Your task to perform on an android device: turn off picture-in-picture Image 0: 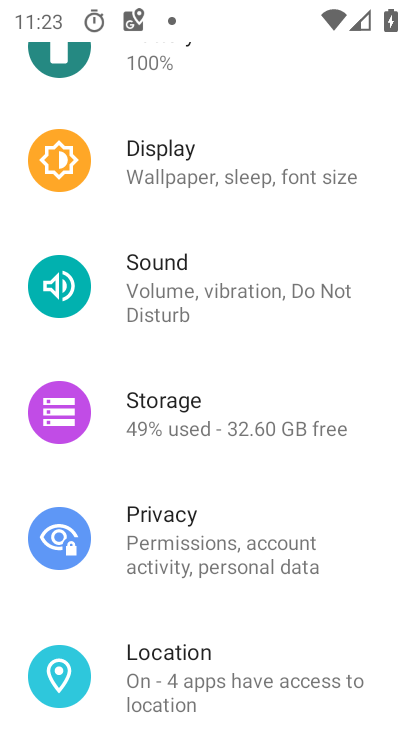
Step 0: press home button
Your task to perform on an android device: turn off picture-in-picture Image 1: 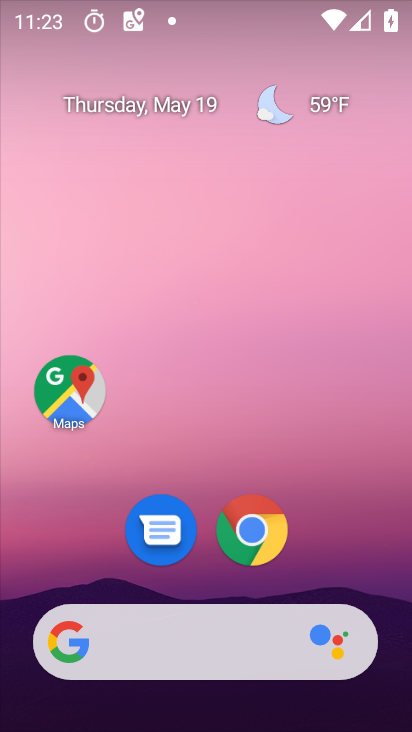
Step 1: drag from (350, 578) to (297, 127)
Your task to perform on an android device: turn off picture-in-picture Image 2: 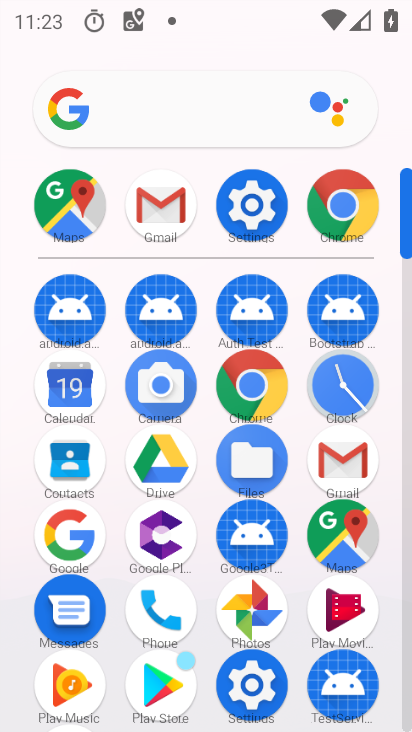
Step 2: click (242, 224)
Your task to perform on an android device: turn off picture-in-picture Image 3: 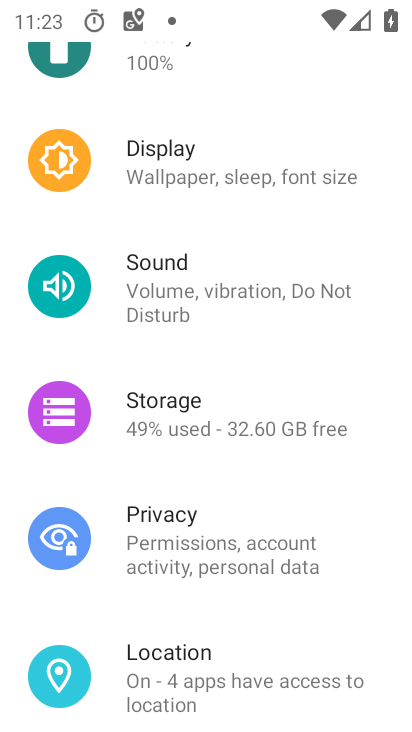
Step 3: drag from (227, 159) to (194, 517)
Your task to perform on an android device: turn off picture-in-picture Image 4: 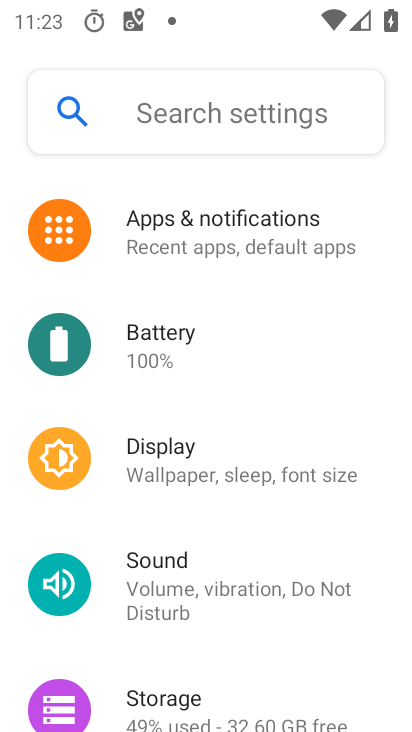
Step 4: click (197, 236)
Your task to perform on an android device: turn off picture-in-picture Image 5: 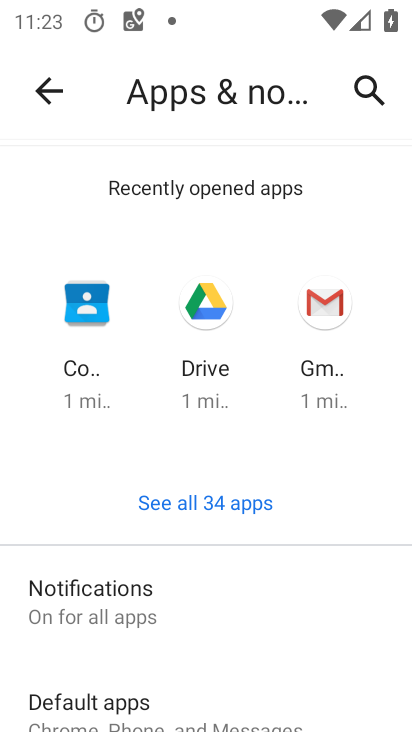
Step 5: drag from (232, 602) to (247, 274)
Your task to perform on an android device: turn off picture-in-picture Image 6: 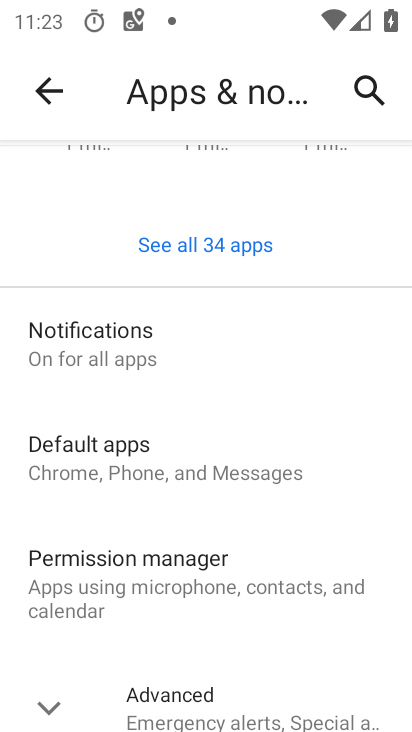
Step 6: drag from (238, 671) to (251, 268)
Your task to perform on an android device: turn off picture-in-picture Image 7: 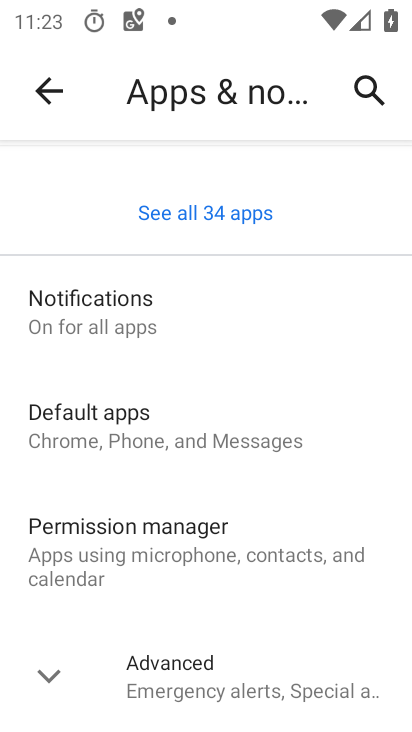
Step 7: click (3, 706)
Your task to perform on an android device: turn off picture-in-picture Image 8: 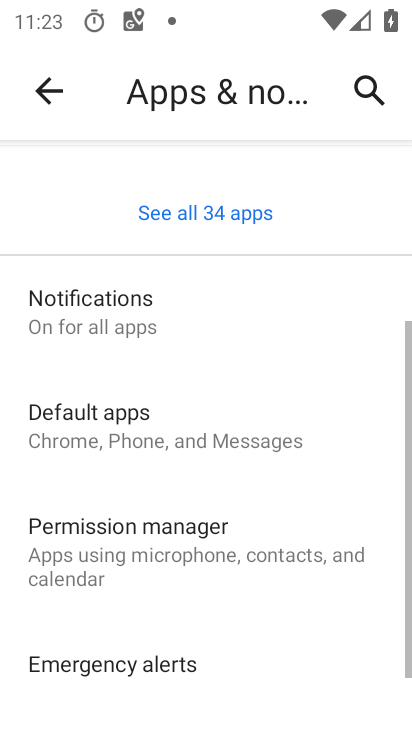
Step 8: drag from (276, 699) to (256, 266)
Your task to perform on an android device: turn off picture-in-picture Image 9: 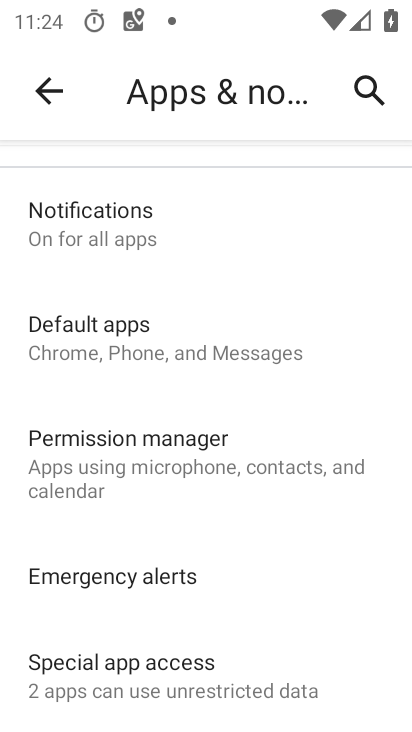
Step 9: click (292, 712)
Your task to perform on an android device: turn off picture-in-picture Image 10: 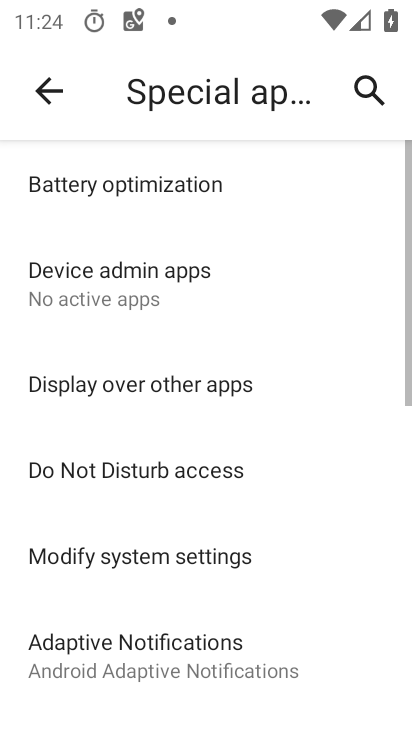
Step 10: drag from (290, 695) to (296, 264)
Your task to perform on an android device: turn off picture-in-picture Image 11: 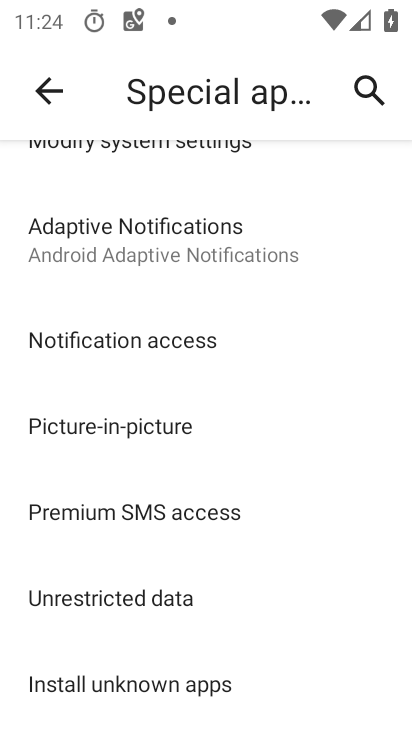
Step 11: click (134, 449)
Your task to perform on an android device: turn off picture-in-picture Image 12: 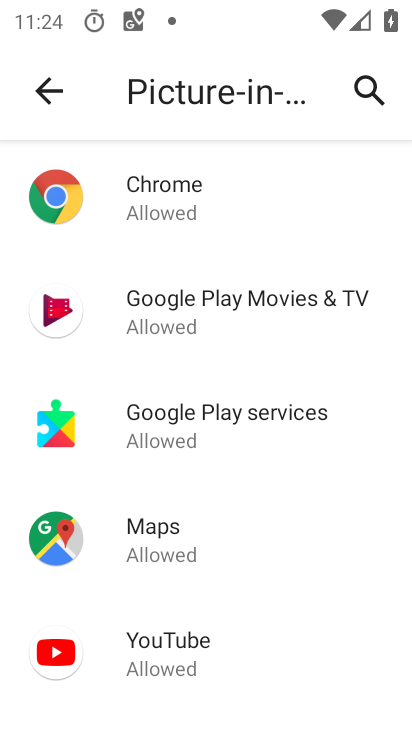
Step 12: click (297, 189)
Your task to perform on an android device: turn off picture-in-picture Image 13: 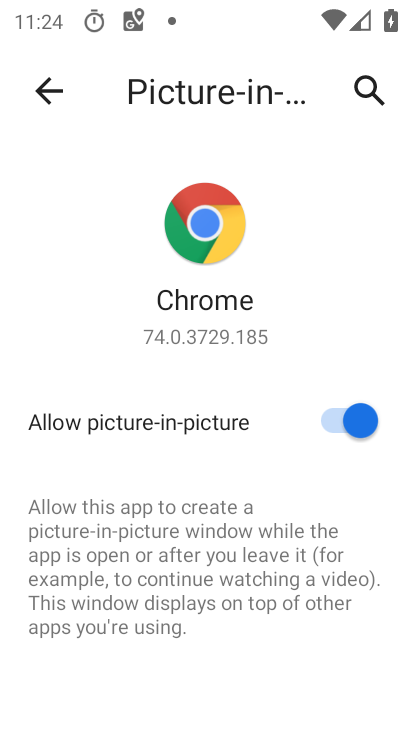
Step 13: click (330, 416)
Your task to perform on an android device: turn off picture-in-picture Image 14: 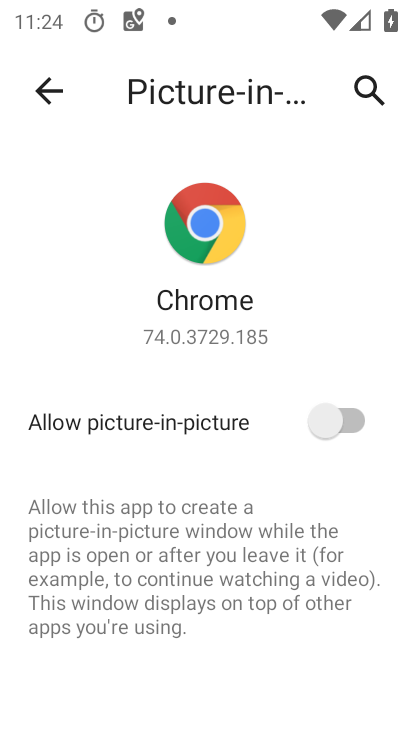
Step 14: task complete